Your task to perform on an android device: Open Yahoo.com Image 0: 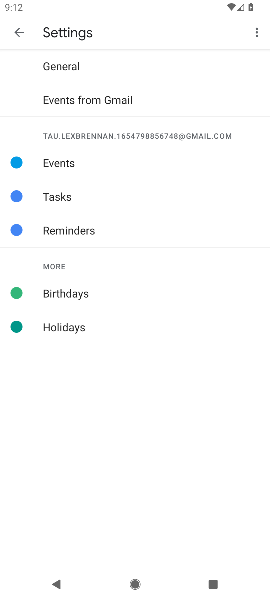
Step 0: press home button
Your task to perform on an android device: Open Yahoo.com Image 1: 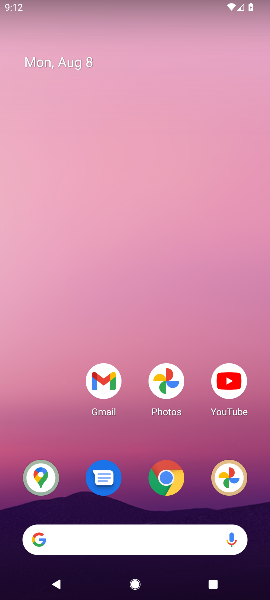
Step 1: click (173, 478)
Your task to perform on an android device: Open Yahoo.com Image 2: 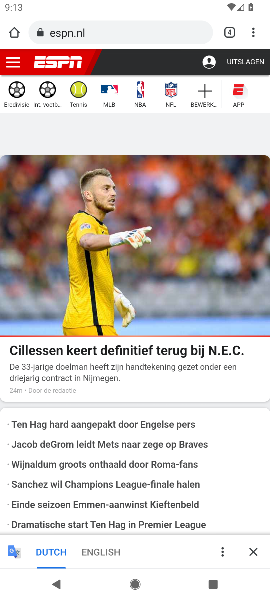
Step 2: drag from (251, 36) to (183, 104)
Your task to perform on an android device: Open Yahoo.com Image 3: 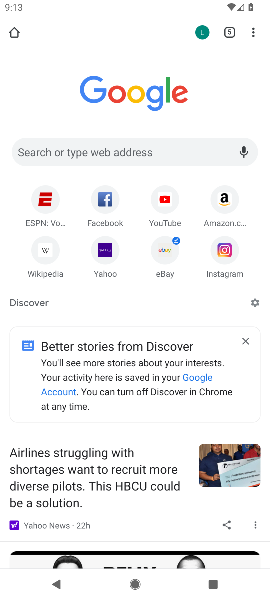
Step 3: click (107, 248)
Your task to perform on an android device: Open Yahoo.com Image 4: 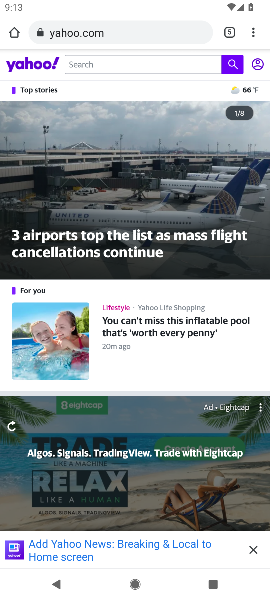
Step 4: task complete